Your task to perform on an android device: read, delete, or share a saved page in the chrome app Image 0: 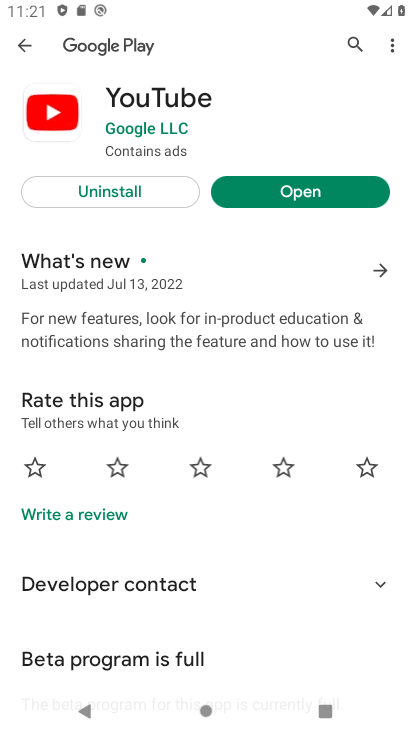
Step 0: press home button
Your task to perform on an android device: read, delete, or share a saved page in the chrome app Image 1: 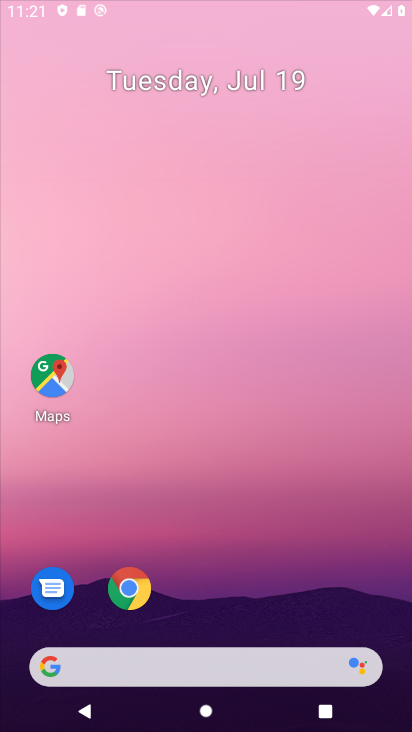
Step 1: drag from (374, 614) to (216, 2)
Your task to perform on an android device: read, delete, or share a saved page in the chrome app Image 2: 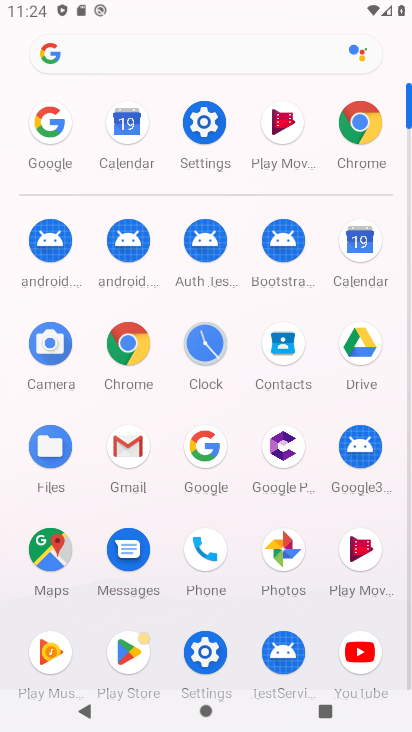
Step 2: click (136, 344)
Your task to perform on an android device: read, delete, or share a saved page in the chrome app Image 3: 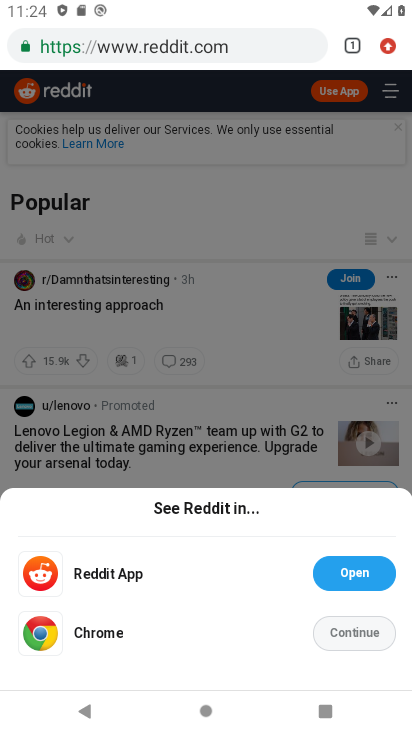
Step 3: task complete